Your task to perform on an android device: turn smart compose on in the gmail app Image 0: 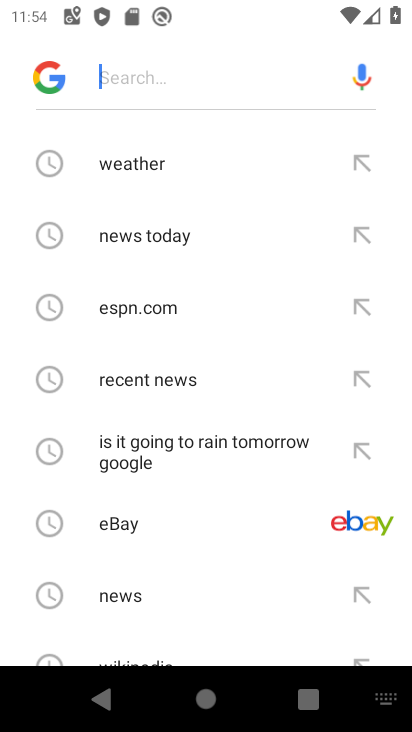
Step 0: press home button
Your task to perform on an android device: turn smart compose on in the gmail app Image 1: 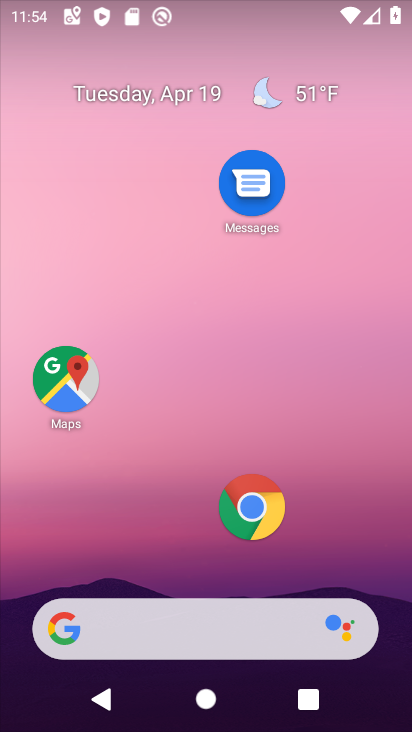
Step 1: drag from (171, 554) to (285, 58)
Your task to perform on an android device: turn smart compose on in the gmail app Image 2: 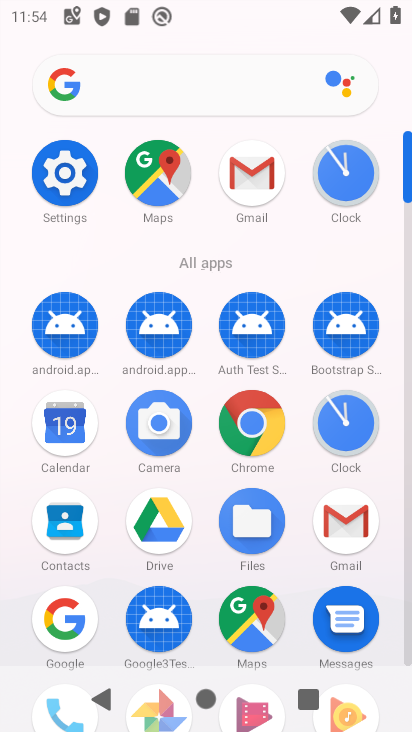
Step 2: click (253, 174)
Your task to perform on an android device: turn smart compose on in the gmail app Image 3: 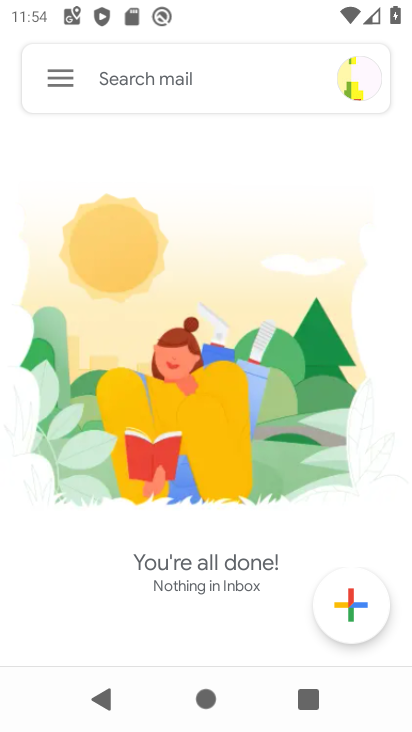
Step 3: click (70, 79)
Your task to perform on an android device: turn smart compose on in the gmail app Image 4: 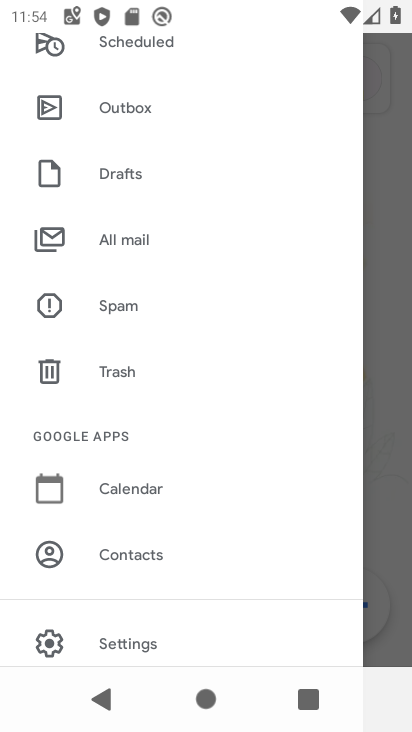
Step 4: click (133, 642)
Your task to perform on an android device: turn smart compose on in the gmail app Image 5: 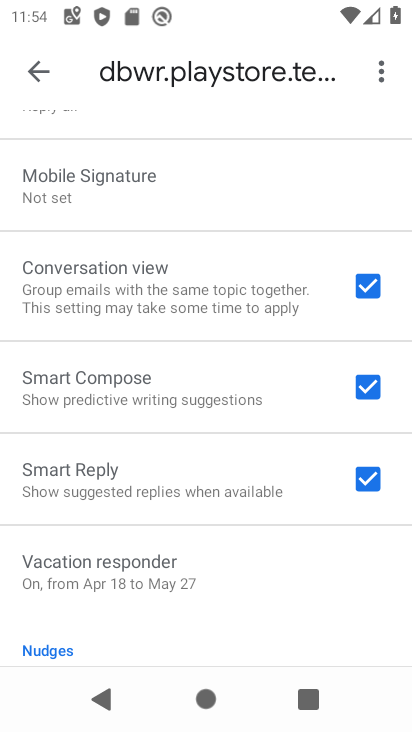
Step 5: task complete